Your task to perform on an android device: change text size in settings app Image 0: 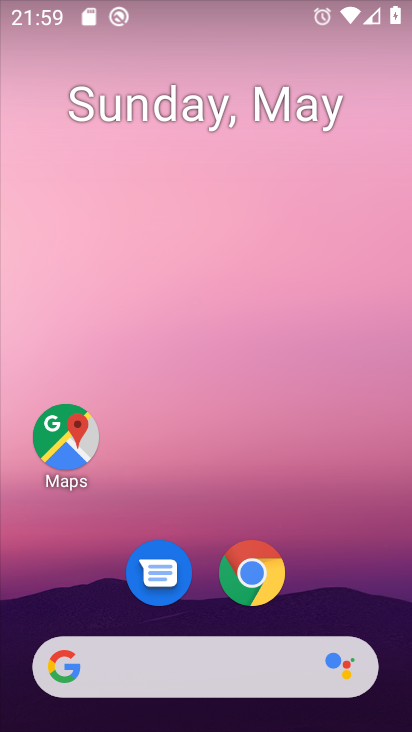
Step 0: drag from (240, 456) to (239, 1)
Your task to perform on an android device: change text size in settings app Image 1: 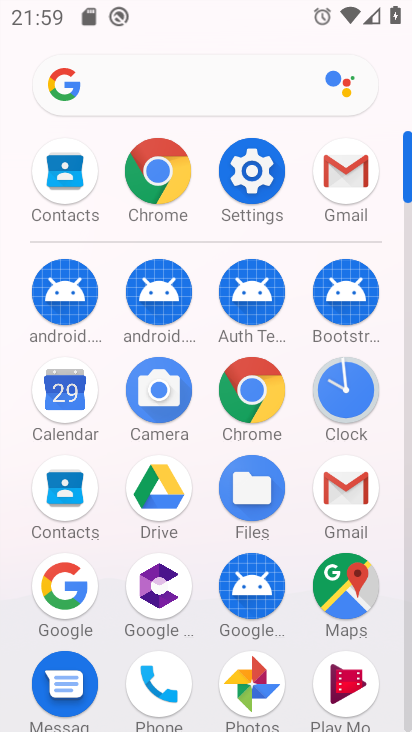
Step 1: click (248, 186)
Your task to perform on an android device: change text size in settings app Image 2: 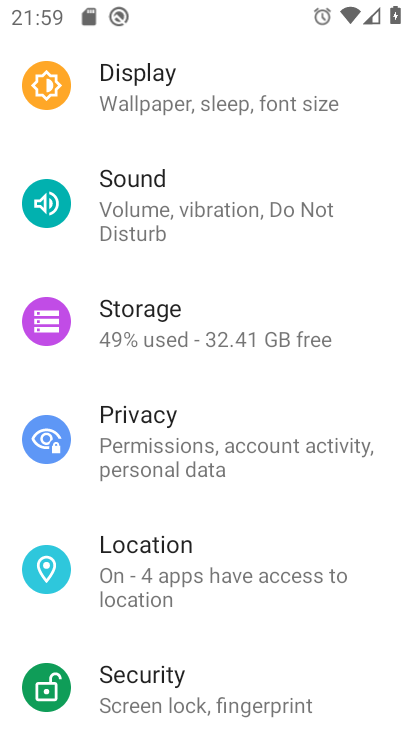
Step 2: click (249, 107)
Your task to perform on an android device: change text size in settings app Image 3: 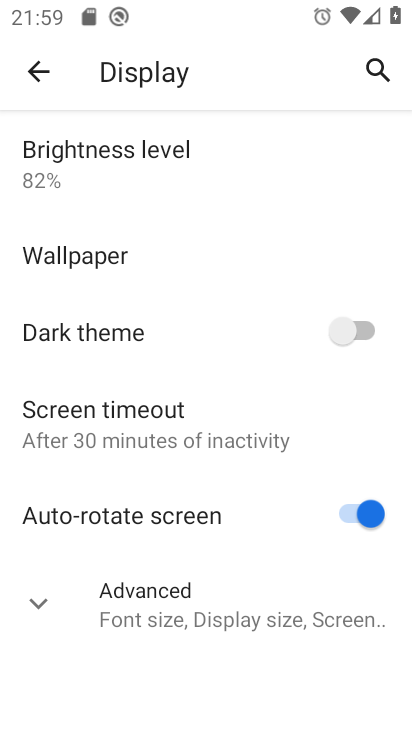
Step 3: click (31, 596)
Your task to perform on an android device: change text size in settings app Image 4: 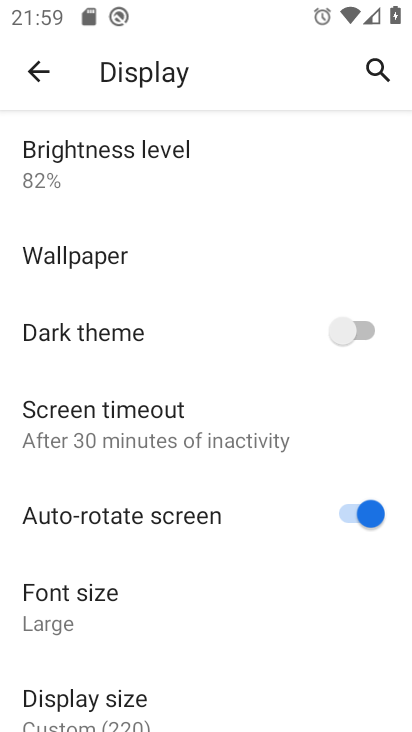
Step 4: click (69, 608)
Your task to perform on an android device: change text size in settings app Image 5: 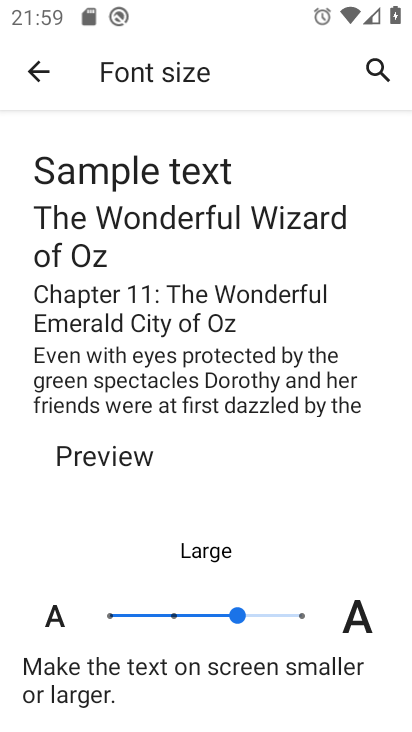
Step 5: click (112, 614)
Your task to perform on an android device: change text size in settings app Image 6: 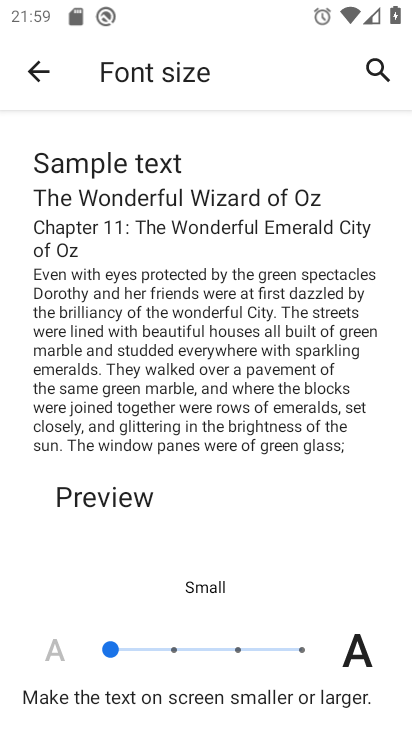
Step 6: click (35, 69)
Your task to perform on an android device: change text size in settings app Image 7: 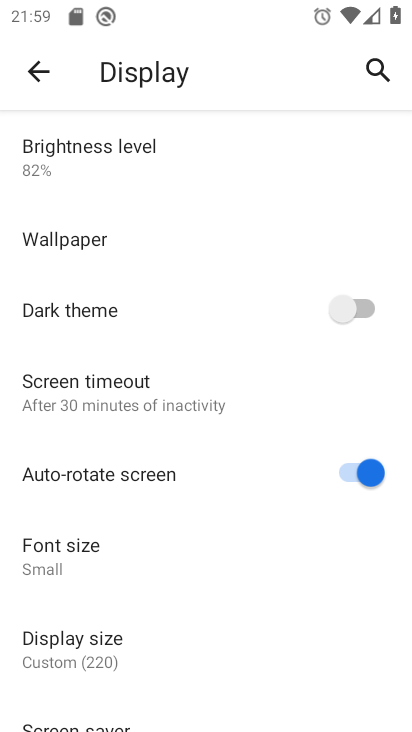
Step 7: click (89, 556)
Your task to perform on an android device: change text size in settings app Image 8: 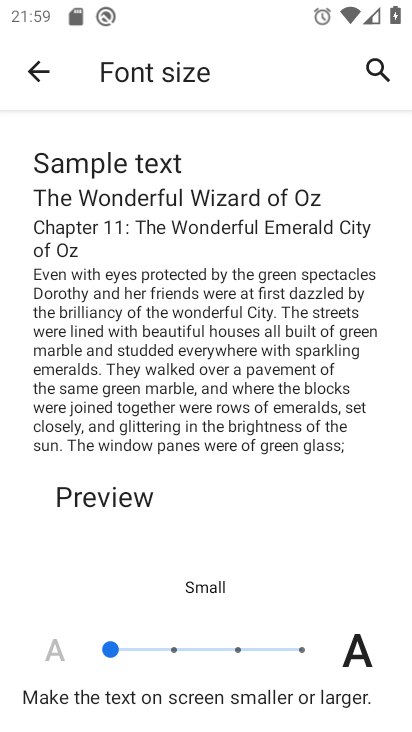
Step 8: click (173, 641)
Your task to perform on an android device: change text size in settings app Image 9: 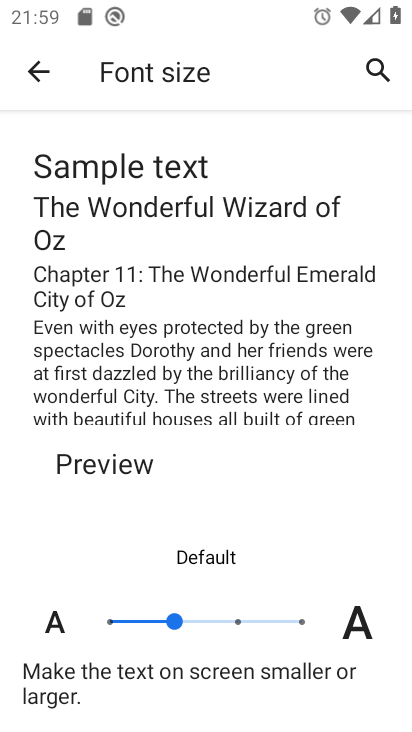
Step 9: click (33, 72)
Your task to perform on an android device: change text size in settings app Image 10: 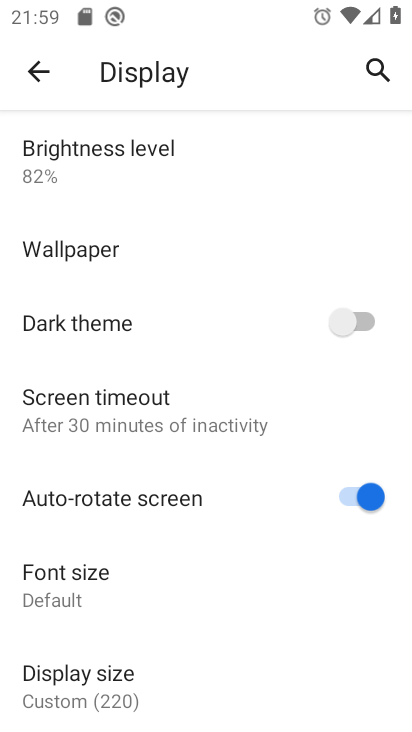
Step 10: task complete